Your task to perform on an android device: change notifications settings Image 0: 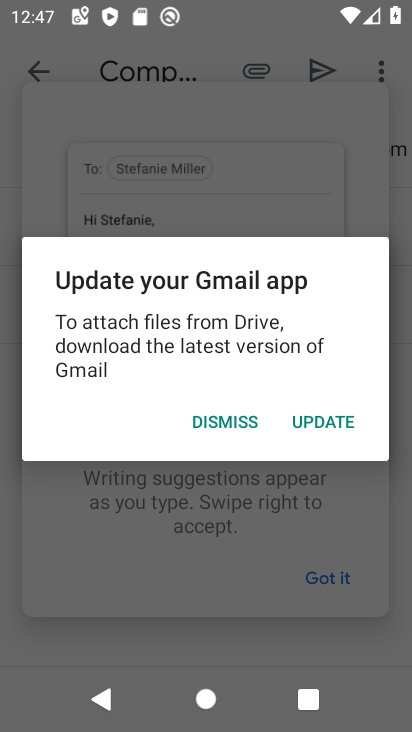
Step 0: press home button
Your task to perform on an android device: change notifications settings Image 1: 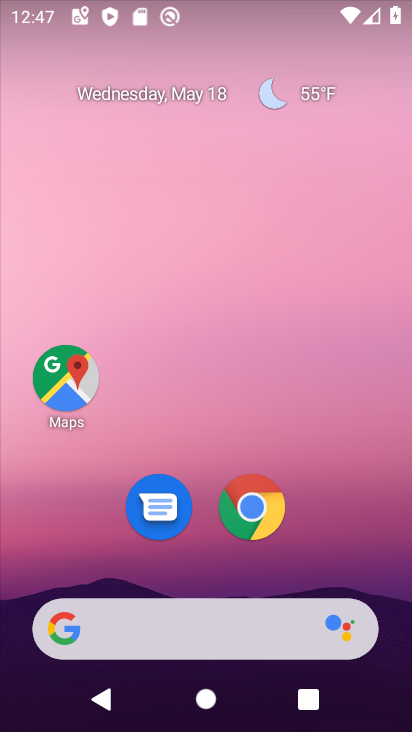
Step 1: drag from (399, 627) to (303, 58)
Your task to perform on an android device: change notifications settings Image 2: 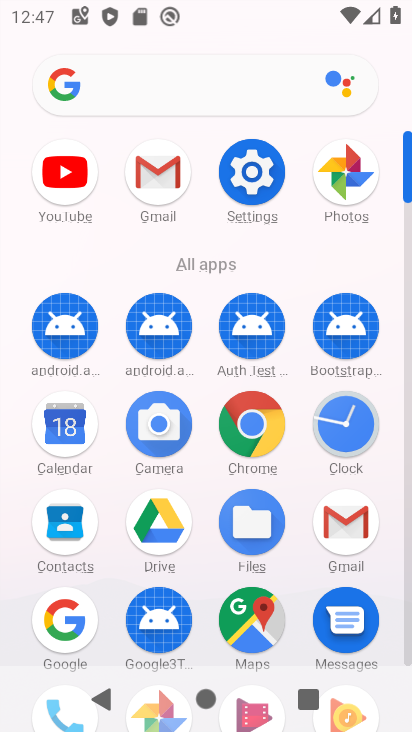
Step 2: click (408, 649)
Your task to perform on an android device: change notifications settings Image 3: 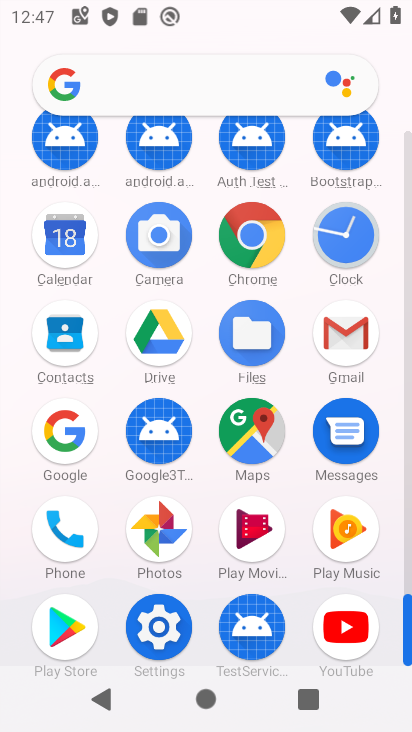
Step 3: click (152, 627)
Your task to perform on an android device: change notifications settings Image 4: 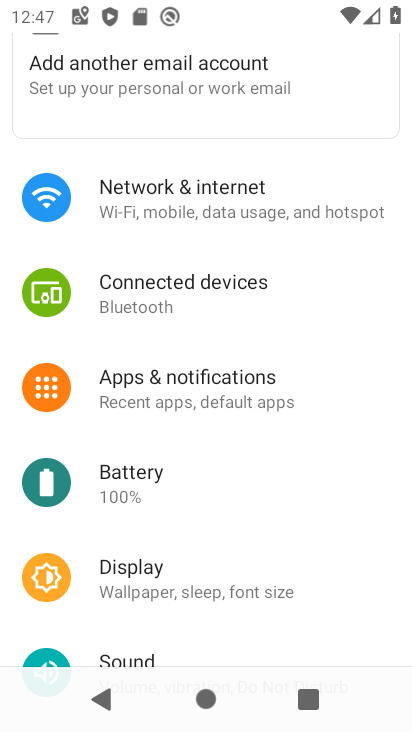
Step 4: click (171, 375)
Your task to perform on an android device: change notifications settings Image 5: 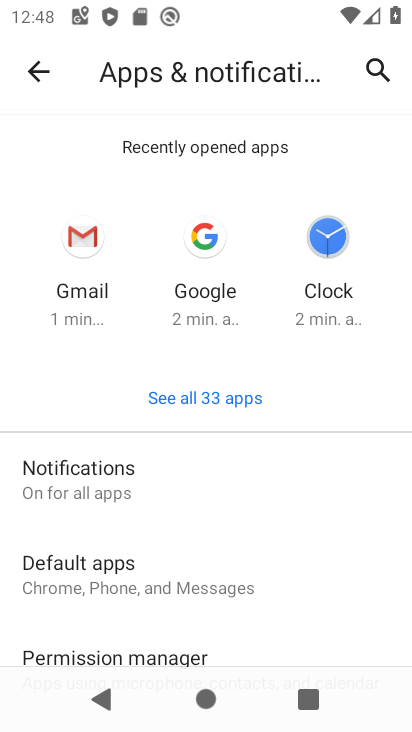
Step 5: click (104, 480)
Your task to perform on an android device: change notifications settings Image 6: 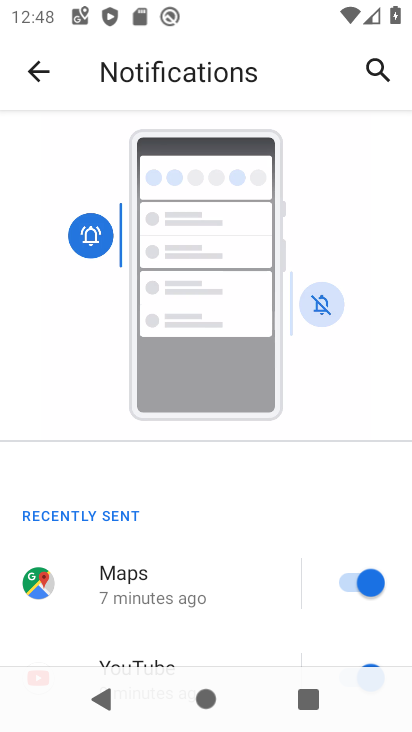
Step 6: drag from (296, 631) to (231, 223)
Your task to perform on an android device: change notifications settings Image 7: 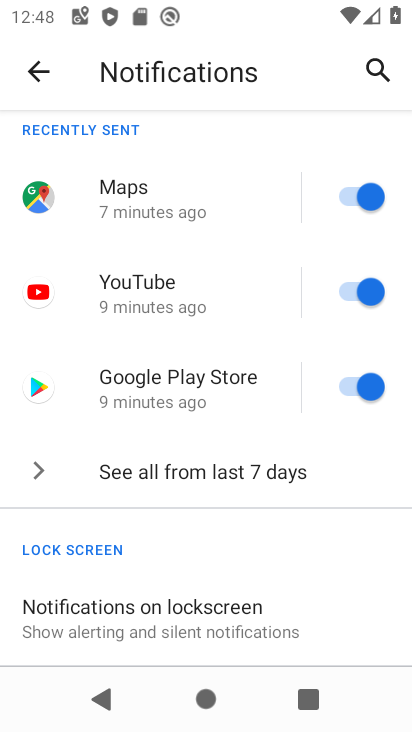
Step 7: drag from (288, 604) to (230, 214)
Your task to perform on an android device: change notifications settings Image 8: 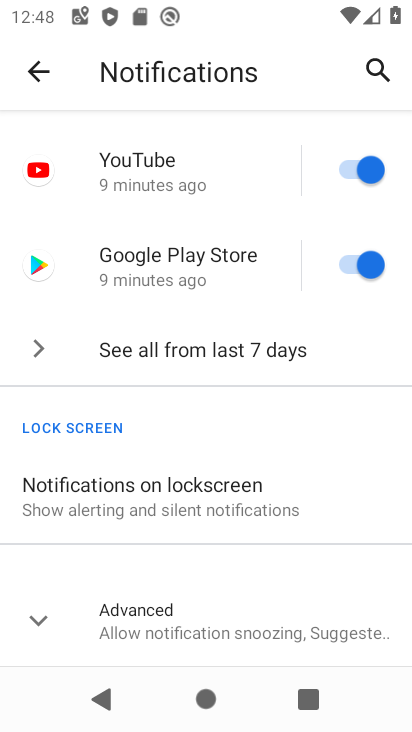
Step 8: click (33, 626)
Your task to perform on an android device: change notifications settings Image 9: 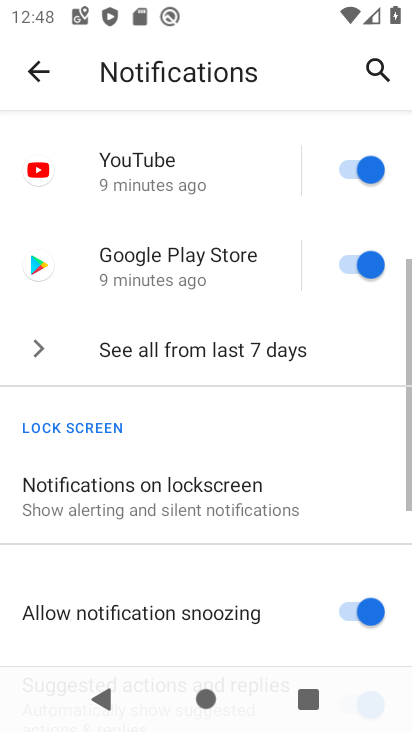
Step 9: drag from (301, 592) to (229, 244)
Your task to perform on an android device: change notifications settings Image 10: 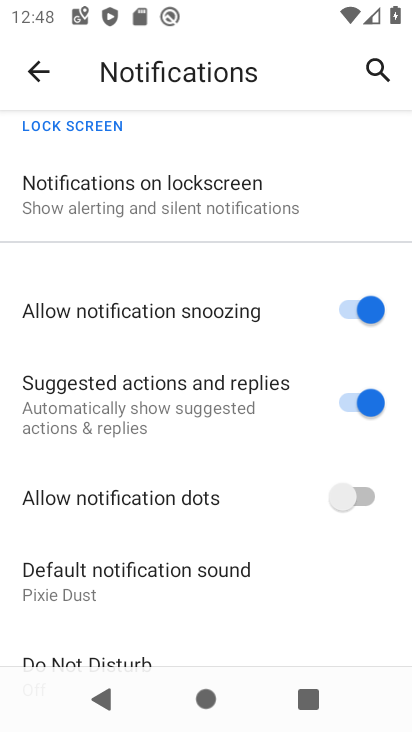
Step 10: click (357, 496)
Your task to perform on an android device: change notifications settings Image 11: 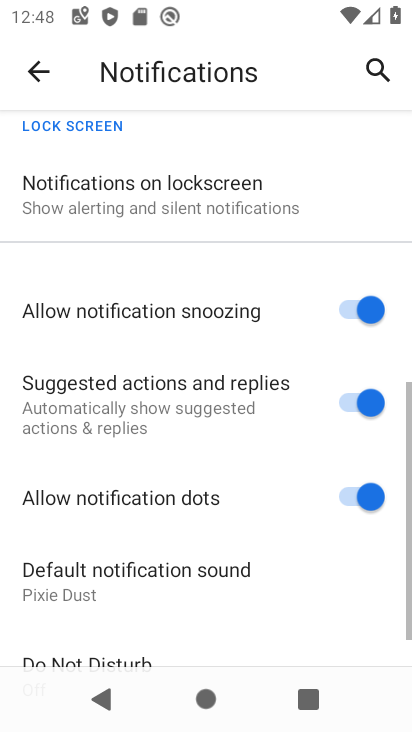
Step 11: click (345, 302)
Your task to perform on an android device: change notifications settings Image 12: 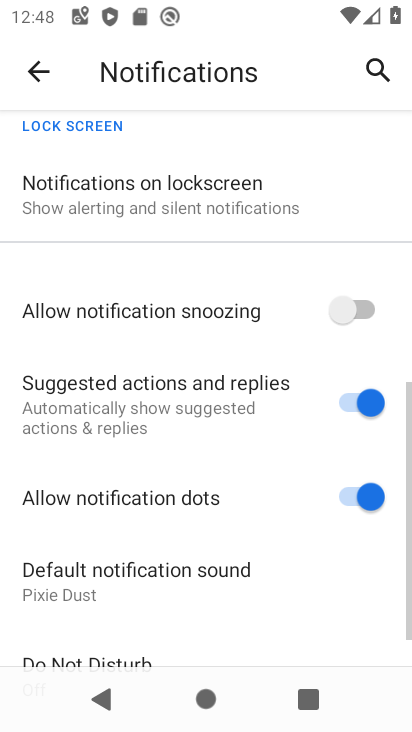
Step 12: task complete